Your task to perform on an android device: change timer sound Image 0: 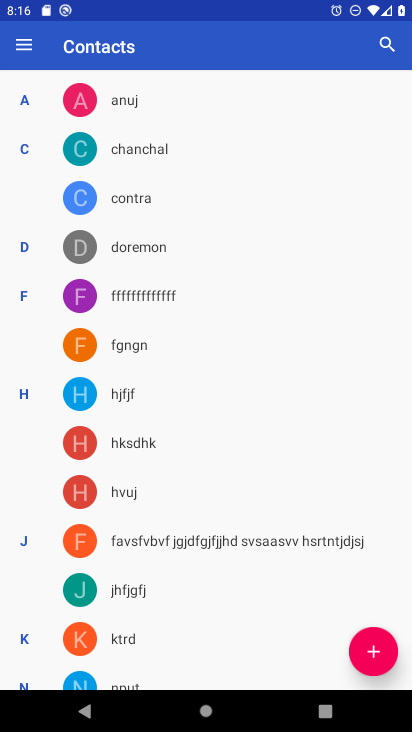
Step 0: press home button
Your task to perform on an android device: change timer sound Image 1: 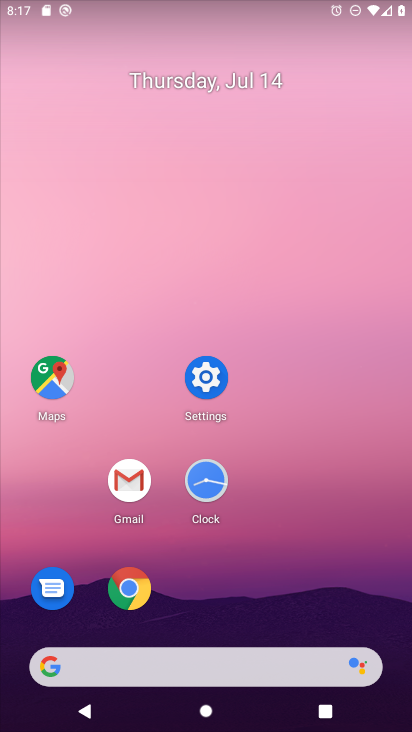
Step 1: click (214, 371)
Your task to perform on an android device: change timer sound Image 2: 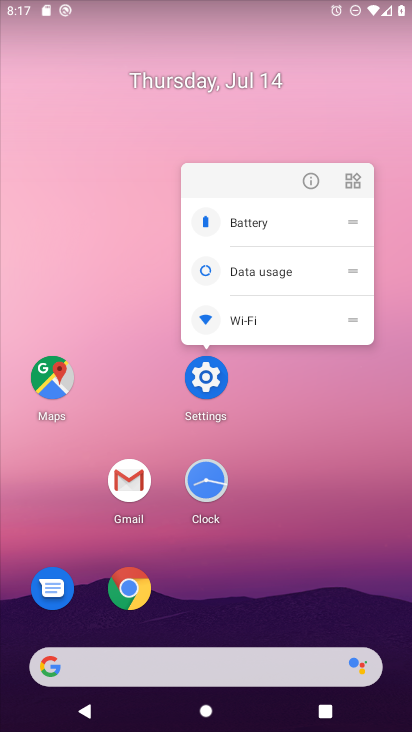
Step 2: click (200, 486)
Your task to perform on an android device: change timer sound Image 3: 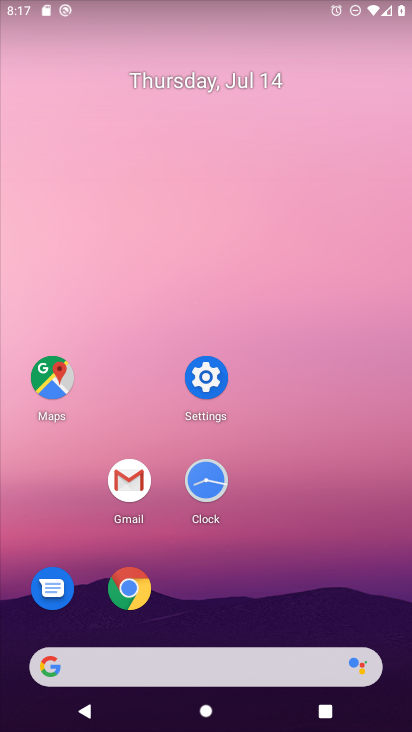
Step 3: click (201, 482)
Your task to perform on an android device: change timer sound Image 4: 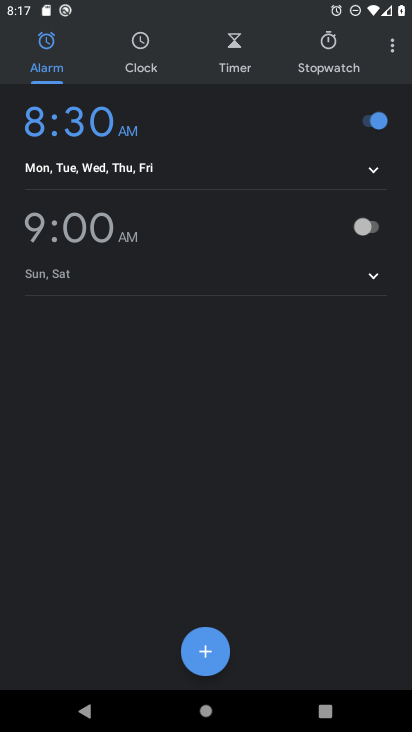
Step 4: click (393, 46)
Your task to perform on an android device: change timer sound Image 5: 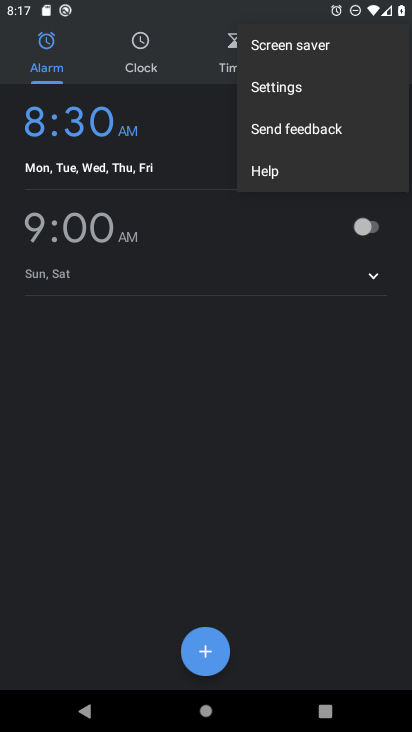
Step 5: click (280, 87)
Your task to perform on an android device: change timer sound Image 6: 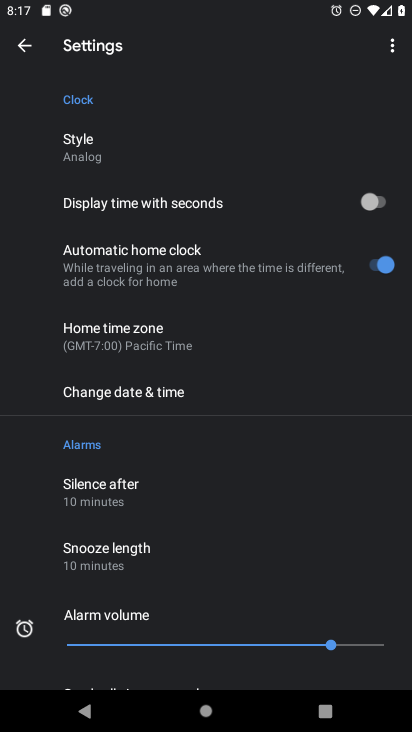
Step 6: drag from (214, 582) to (175, 121)
Your task to perform on an android device: change timer sound Image 7: 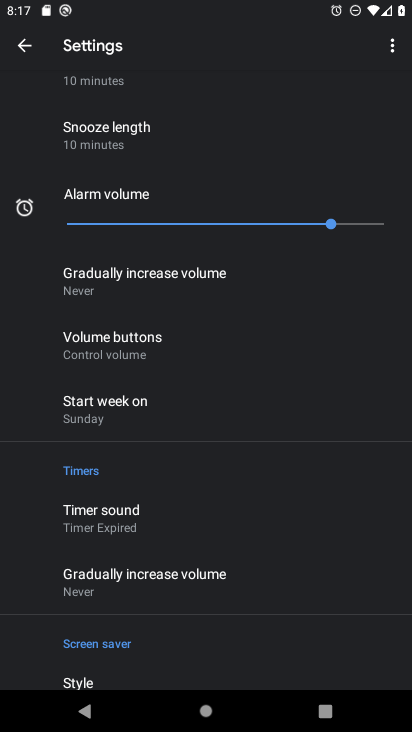
Step 7: click (77, 514)
Your task to perform on an android device: change timer sound Image 8: 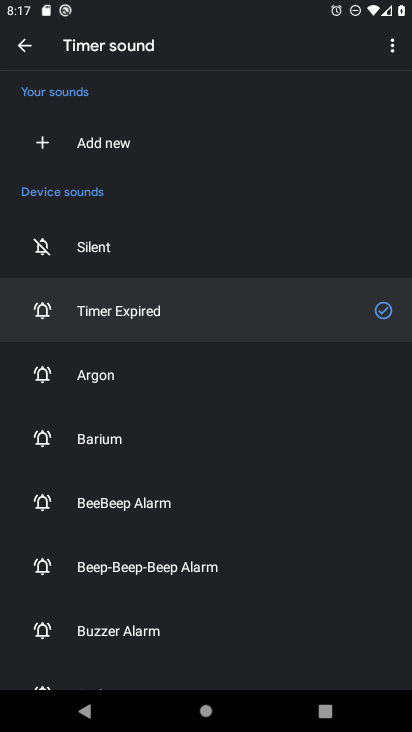
Step 8: click (87, 434)
Your task to perform on an android device: change timer sound Image 9: 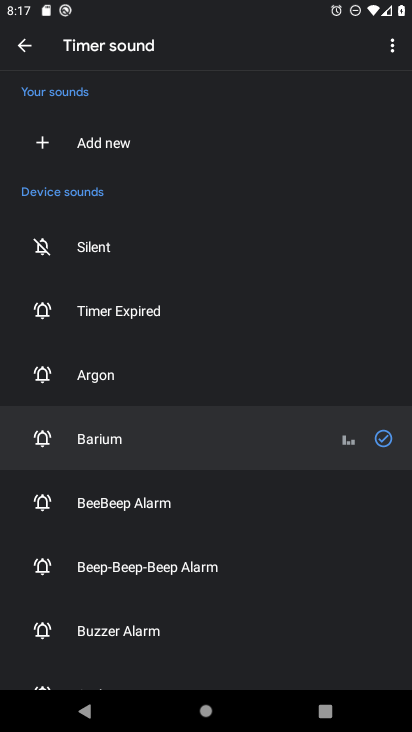
Step 9: task complete